Your task to perform on an android device: Open internet settings Image 0: 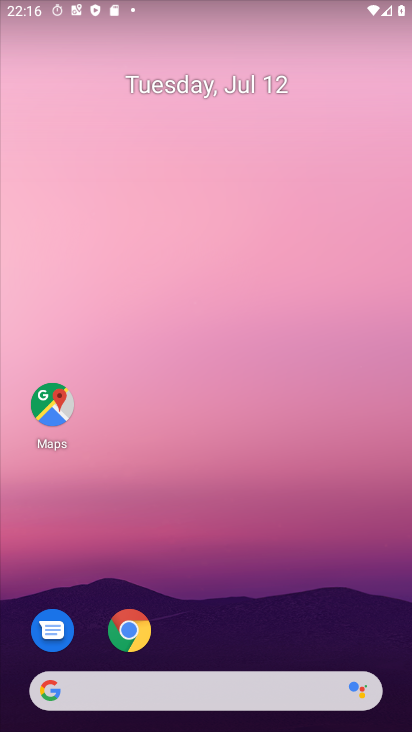
Step 0: drag from (260, 613) to (325, 57)
Your task to perform on an android device: Open internet settings Image 1: 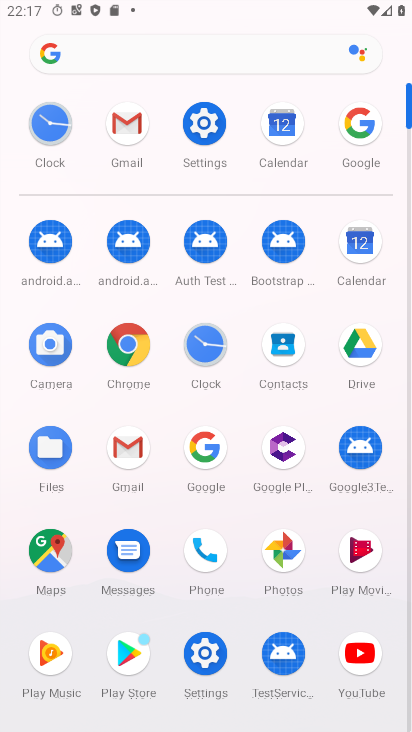
Step 1: click (185, 123)
Your task to perform on an android device: Open internet settings Image 2: 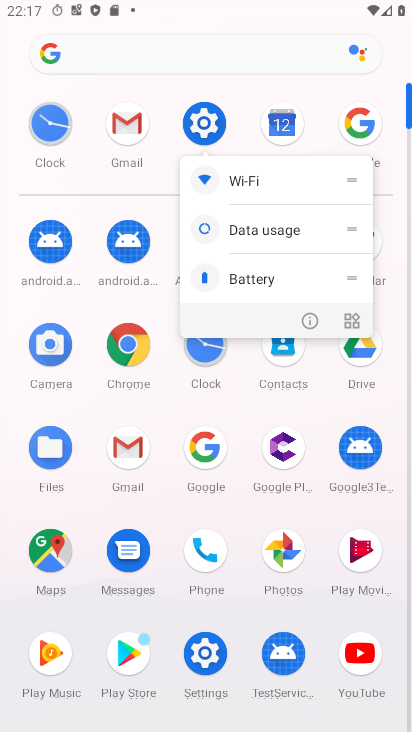
Step 2: click (201, 117)
Your task to perform on an android device: Open internet settings Image 3: 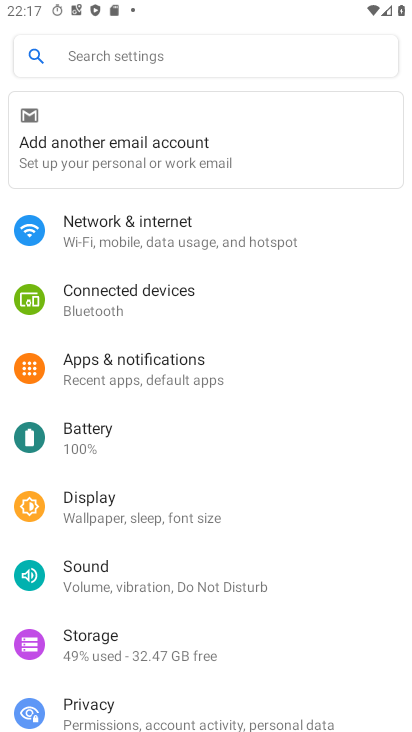
Step 3: click (179, 227)
Your task to perform on an android device: Open internet settings Image 4: 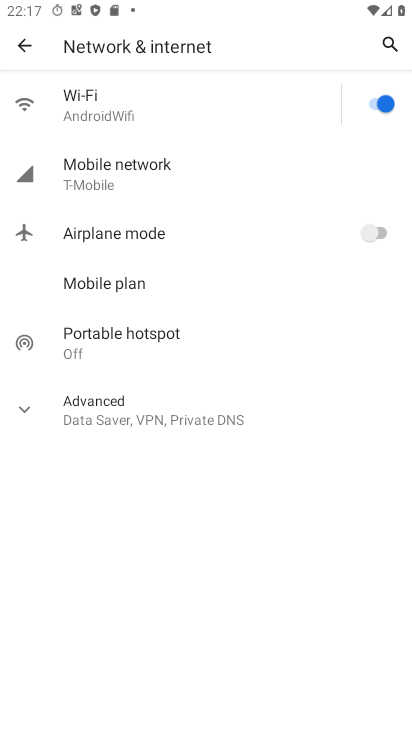
Step 4: task complete